Your task to perform on an android device: Open the map Image 0: 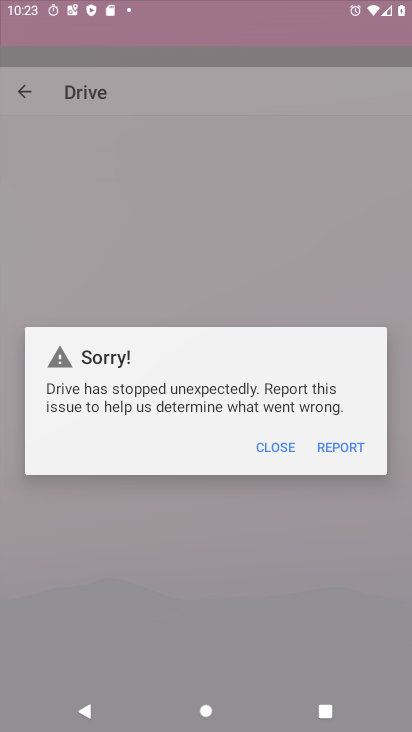
Step 0: drag from (211, 567) to (269, 83)
Your task to perform on an android device: Open the map Image 1: 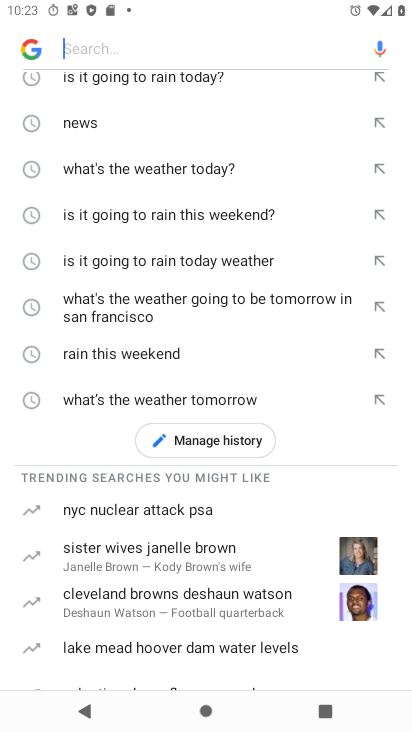
Step 1: press back button
Your task to perform on an android device: Open the map Image 2: 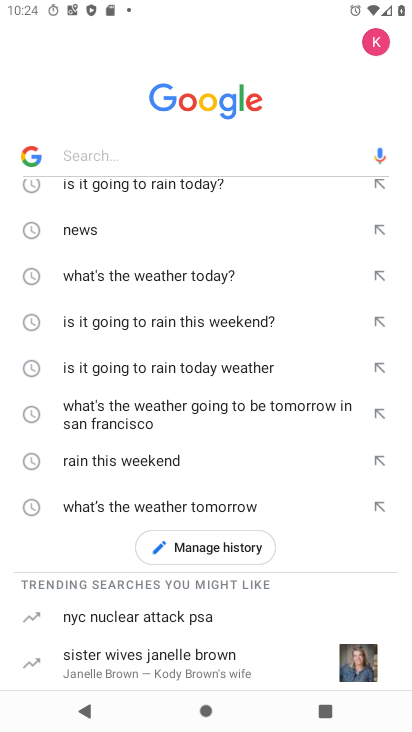
Step 2: press back button
Your task to perform on an android device: Open the map Image 3: 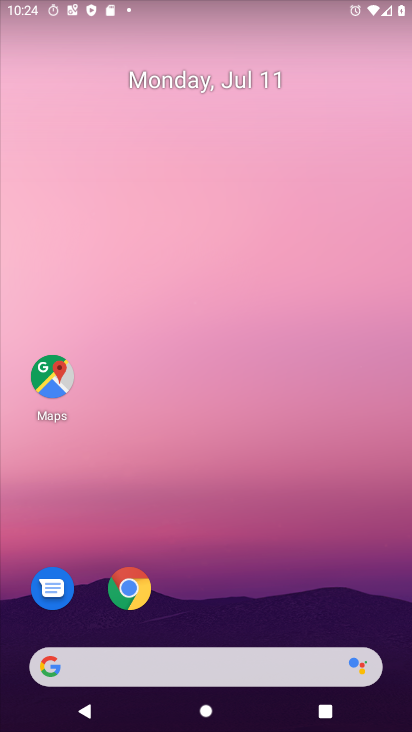
Step 3: click (49, 374)
Your task to perform on an android device: Open the map Image 4: 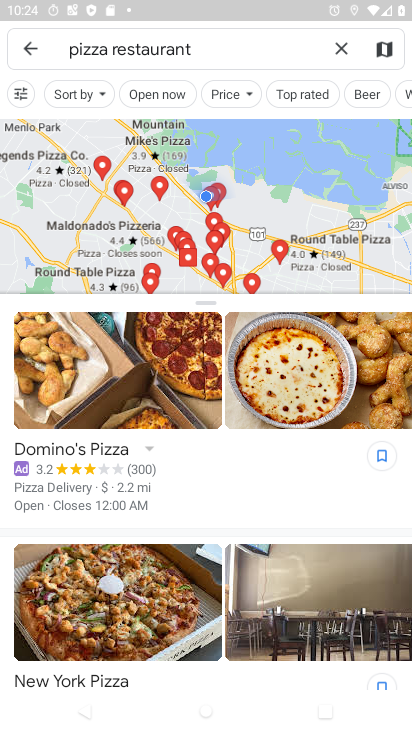
Step 4: task complete